Your task to perform on an android device: create a new album in the google photos Image 0: 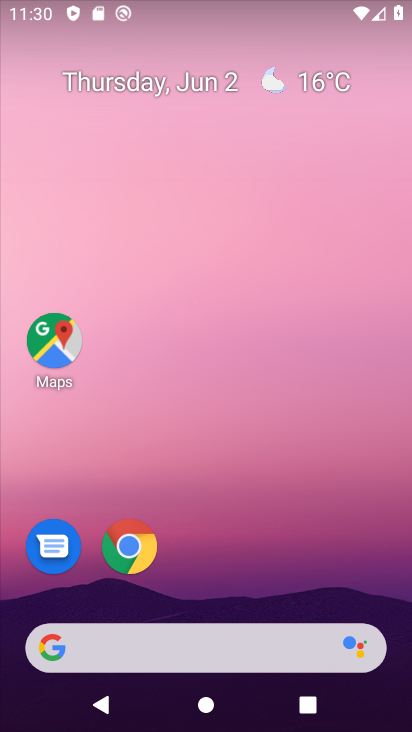
Step 0: drag from (277, 549) to (166, 125)
Your task to perform on an android device: create a new album in the google photos Image 1: 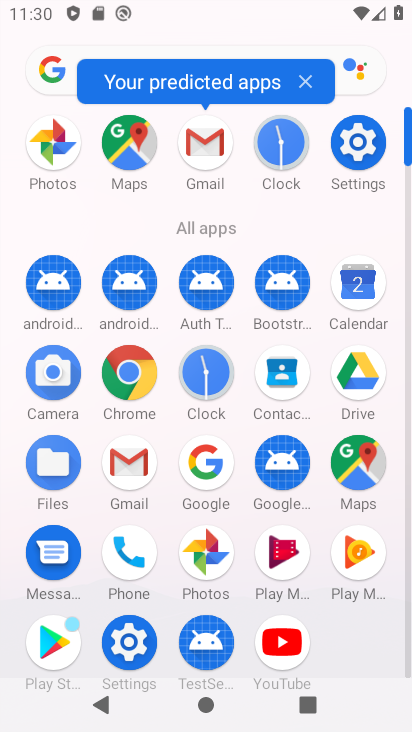
Step 1: click (54, 134)
Your task to perform on an android device: create a new album in the google photos Image 2: 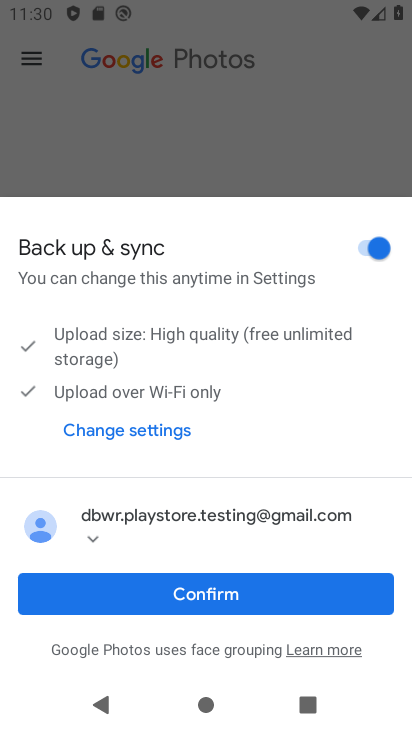
Step 2: click (188, 603)
Your task to perform on an android device: create a new album in the google photos Image 3: 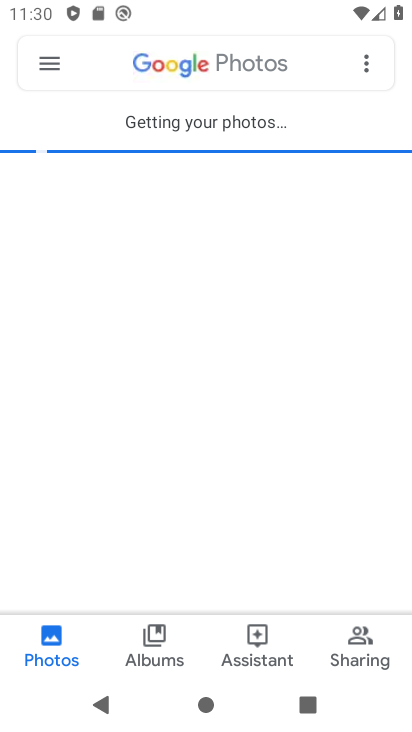
Step 3: click (33, 52)
Your task to perform on an android device: create a new album in the google photos Image 4: 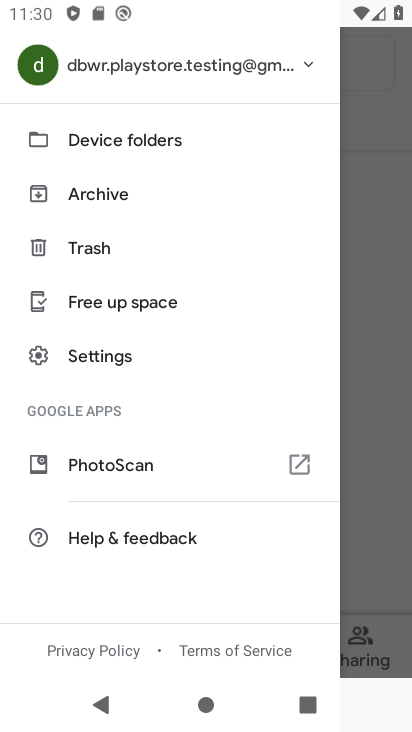
Step 4: click (355, 295)
Your task to perform on an android device: create a new album in the google photos Image 5: 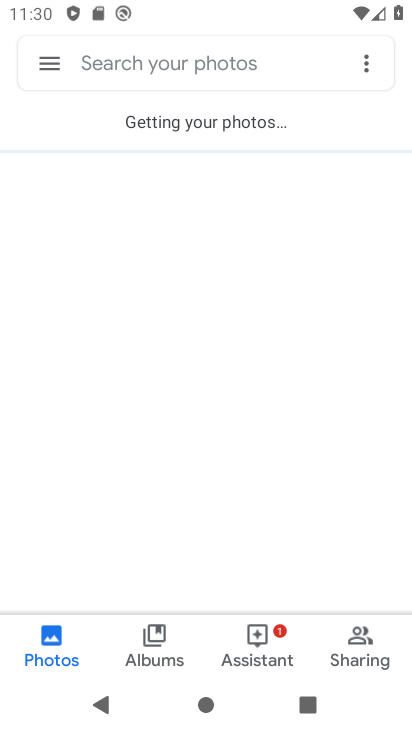
Step 5: click (150, 624)
Your task to perform on an android device: create a new album in the google photos Image 6: 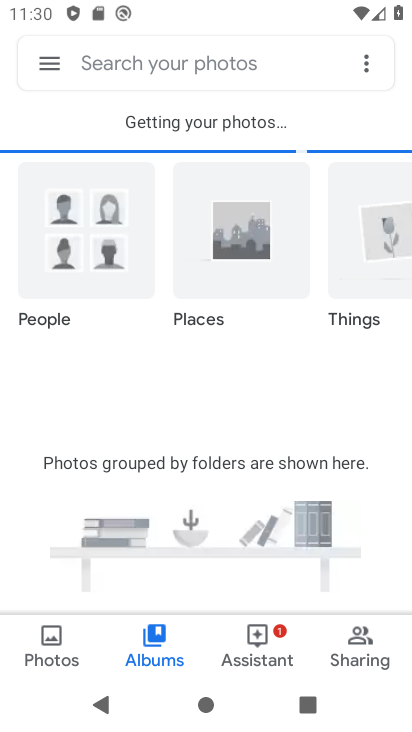
Step 6: click (367, 63)
Your task to perform on an android device: create a new album in the google photos Image 7: 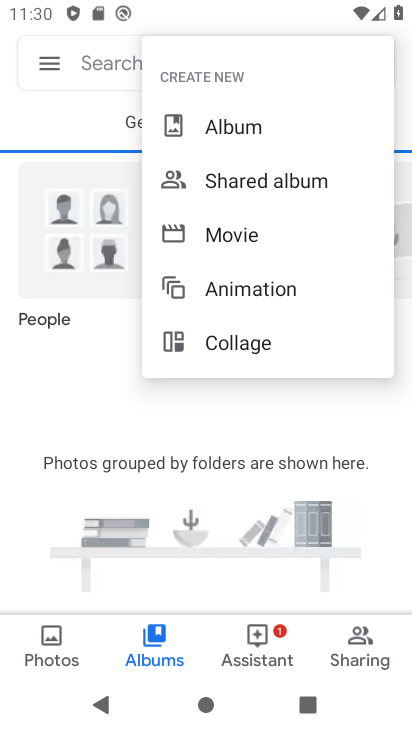
Step 7: click (231, 121)
Your task to perform on an android device: create a new album in the google photos Image 8: 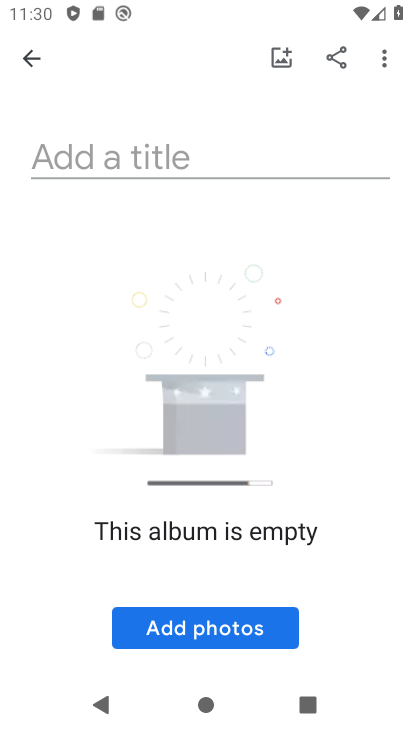
Step 8: click (130, 151)
Your task to perform on an android device: create a new album in the google photos Image 9: 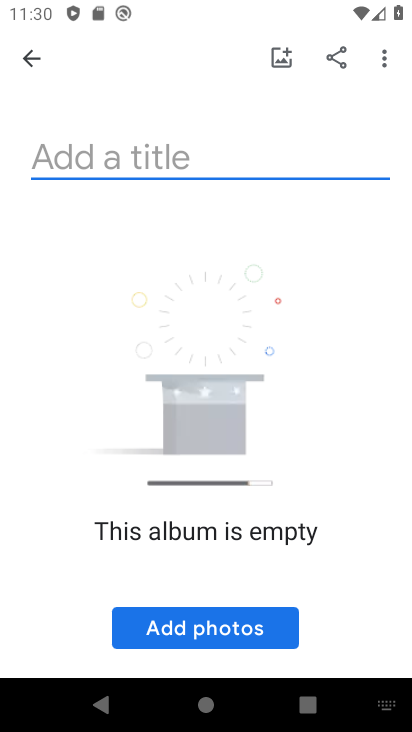
Step 9: type "lkjjkhgfdsfggjh"
Your task to perform on an android device: create a new album in the google photos Image 10: 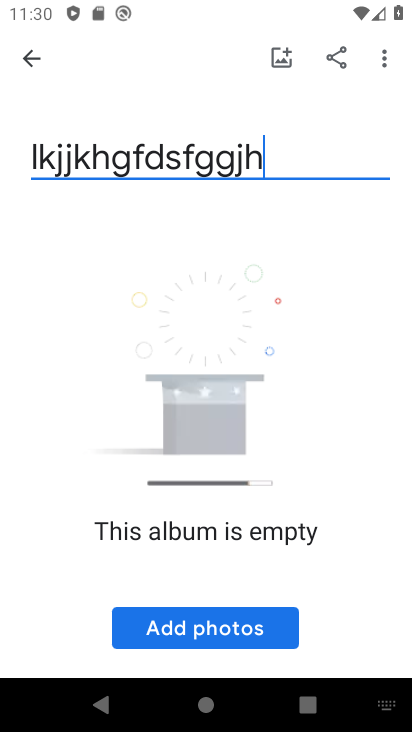
Step 10: click (142, 235)
Your task to perform on an android device: create a new album in the google photos Image 11: 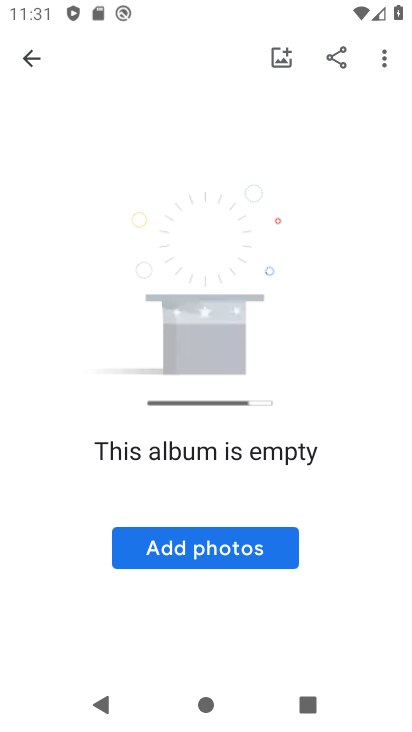
Step 11: task complete